Your task to perform on an android device: open a bookmark in the chrome app Image 0: 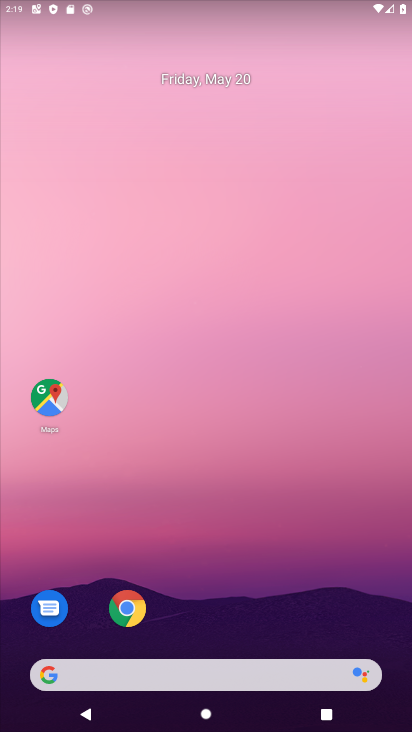
Step 0: click (124, 602)
Your task to perform on an android device: open a bookmark in the chrome app Image 1: 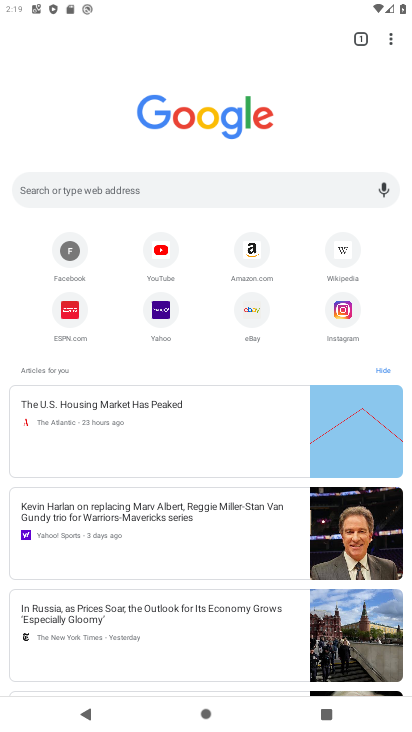
Step 1: task complete